Your task to perform on an android device: toggle airplane mode Image 0: 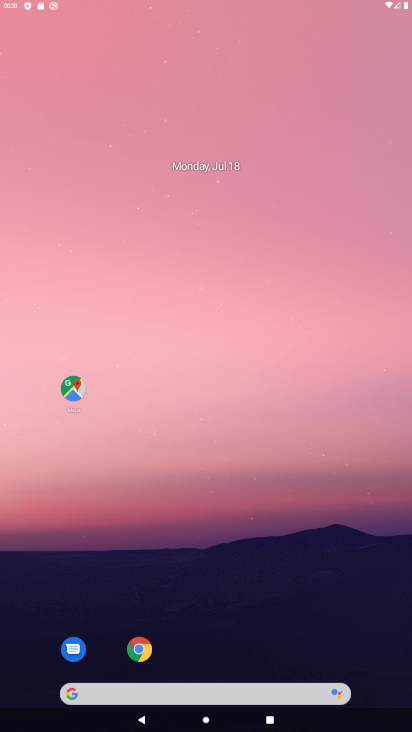
Step 0: press home button
Your task to perform on an android device: toggle airplane mode Image 1: 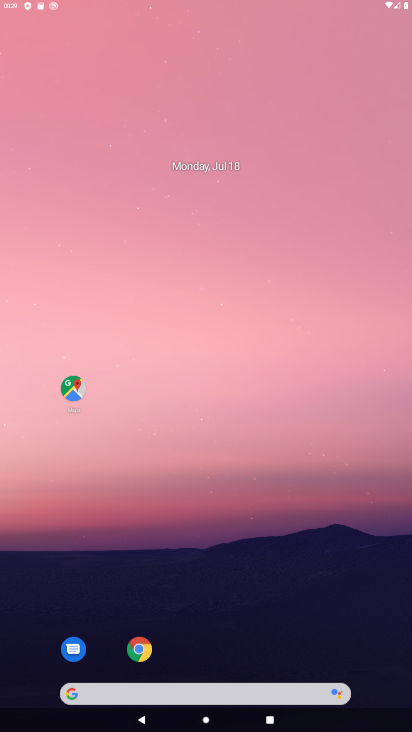
Step 1: click (192, 11)
Your task to perform on an android device: toggle airplane mode Image 2: 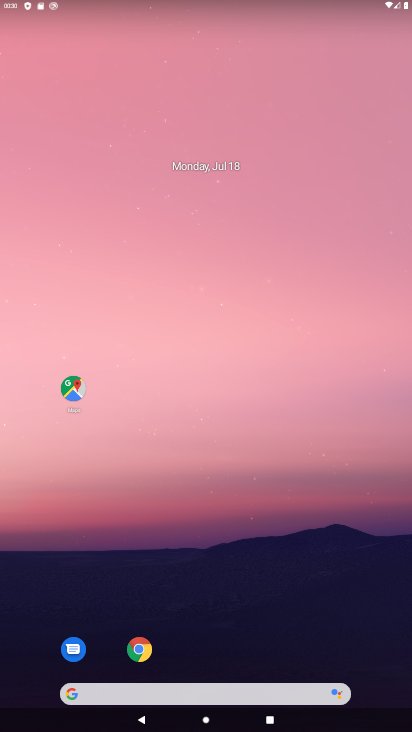
Step 2: drag from (195, 602) to (219, 267)
Your task to perform on an android device: toggle airplane mode Image 3: 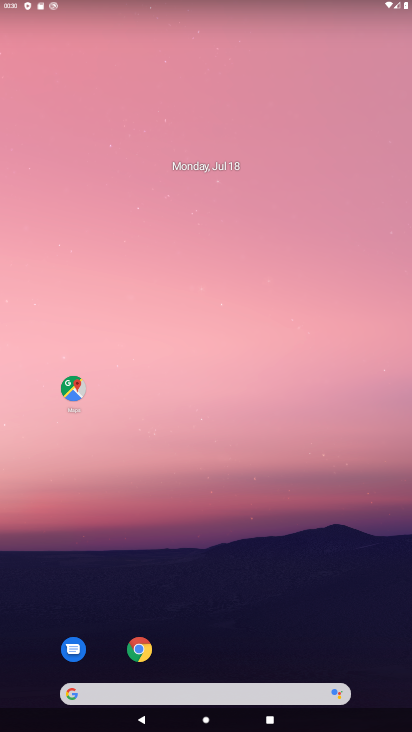
Step 3: drag from (204, 533) to (232, 223)
Your task to perform on an android device: toggle airplane mode Image 4: 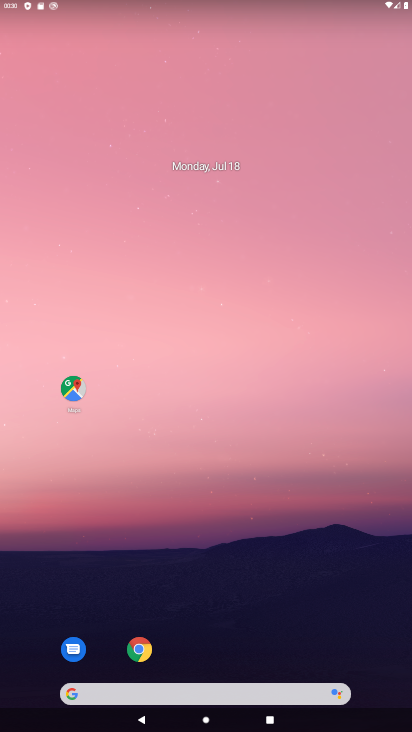
Step 4: drag from (183, 491) to (191, 190)
Your task to perform on an android device: toggle airplane mode Image 5: 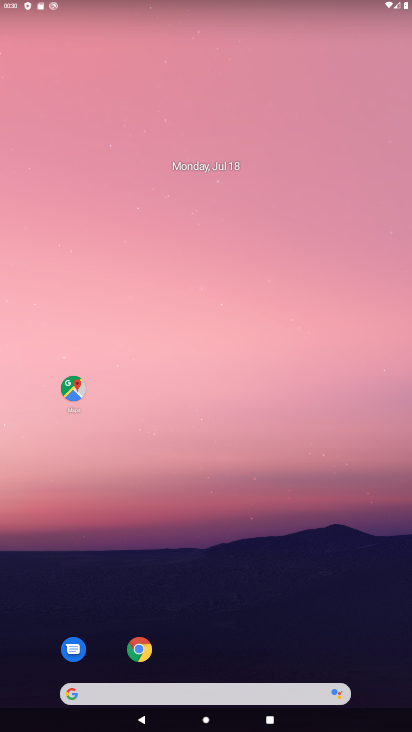
Step 5: drag from (206, 632) to (243, 3)
Your task to perform on an android device: toggle airplane mode Image 6: 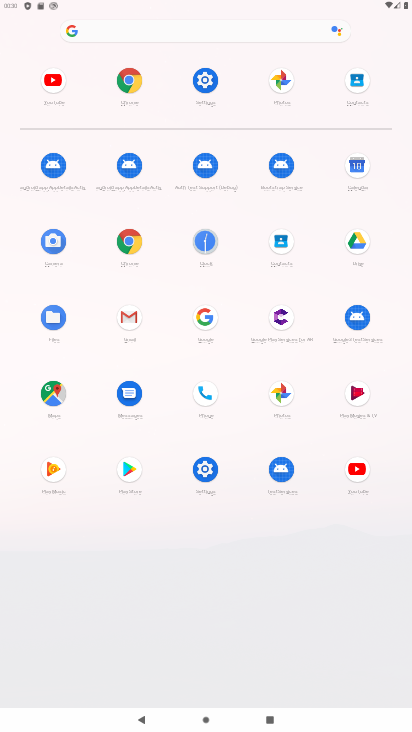
Step 6: click (204, 79)
Your task to perform on an android device: toggle airplane mode Image 7: 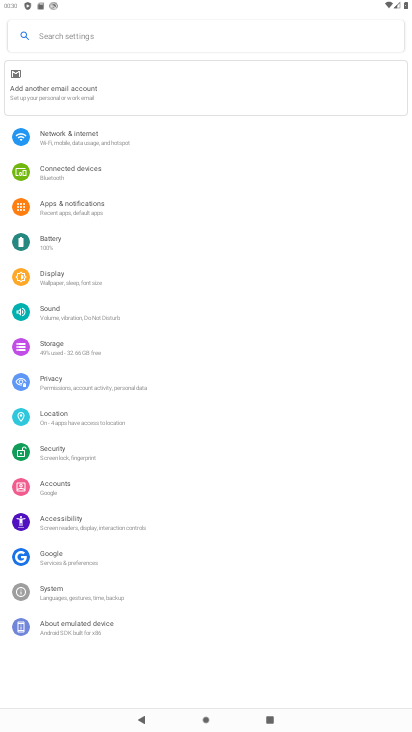
Step 7: click (122, 145)
Your task to perform on an android device: toggle airplane mode Image 8: 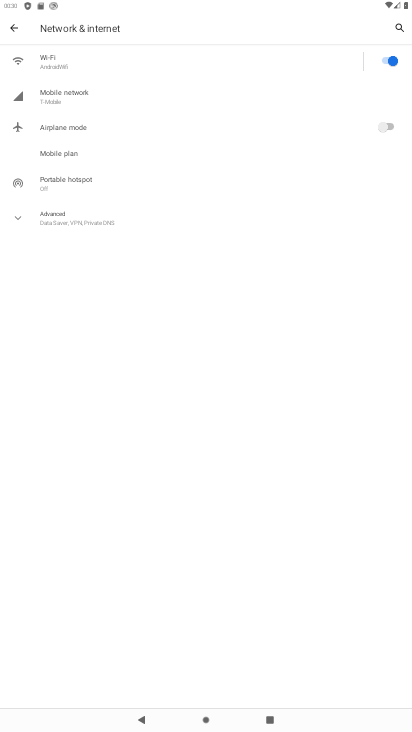
Step 8: click (122, 145)
Your task to perform on an android device: toggle airplane mode Image 9: 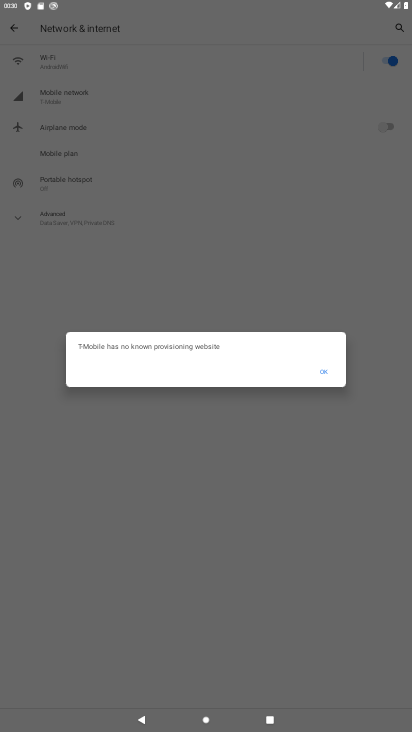
Step 9: click (390, 65)
Your task to perform on an android device: toggle airplane mode Image 10: 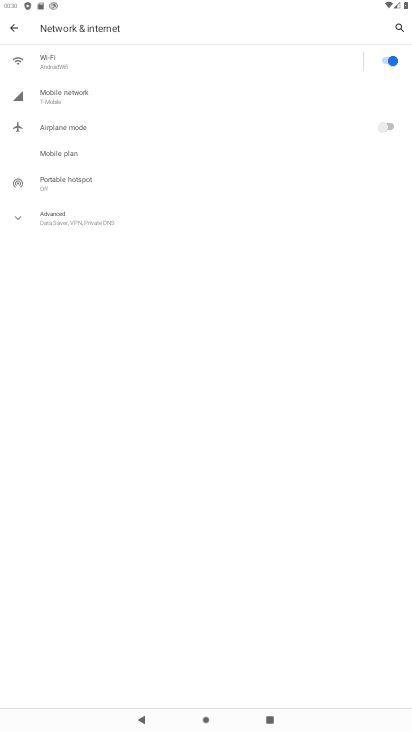
Step 10: click (387, 125)
Your task to perform on an android device: toggle airplane mode Image 11: 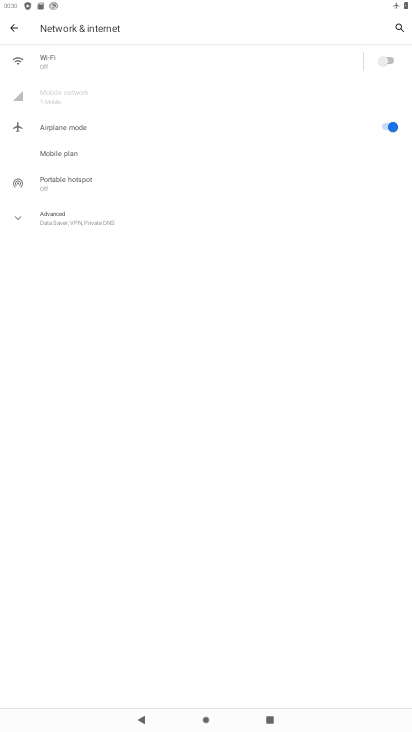
Step 11: task complete